Your task to perform on an android device: see creations saved in the google photos Image 0: 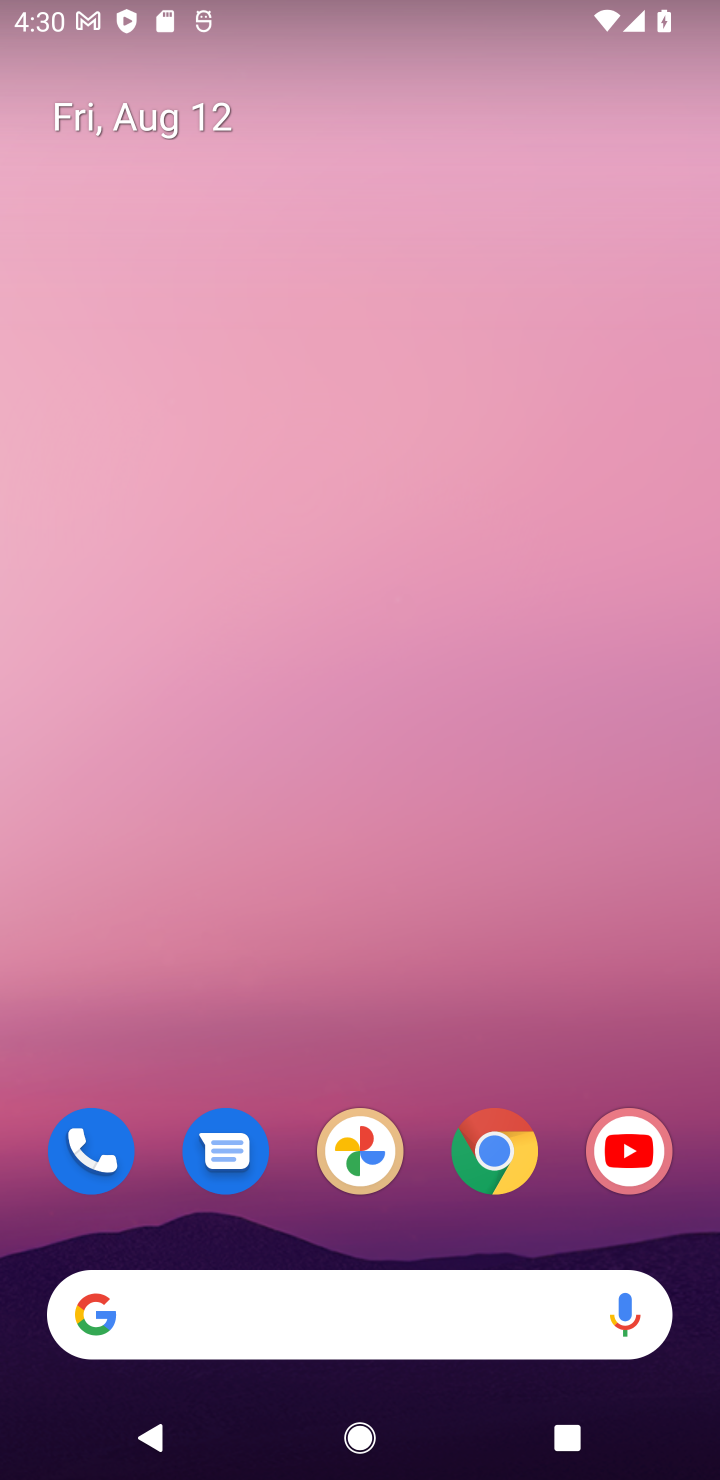
Step 0: drag from (260, 1197) to (504, 238)
Your task to perform on an android device: see creations saved in the google photos Image 1: 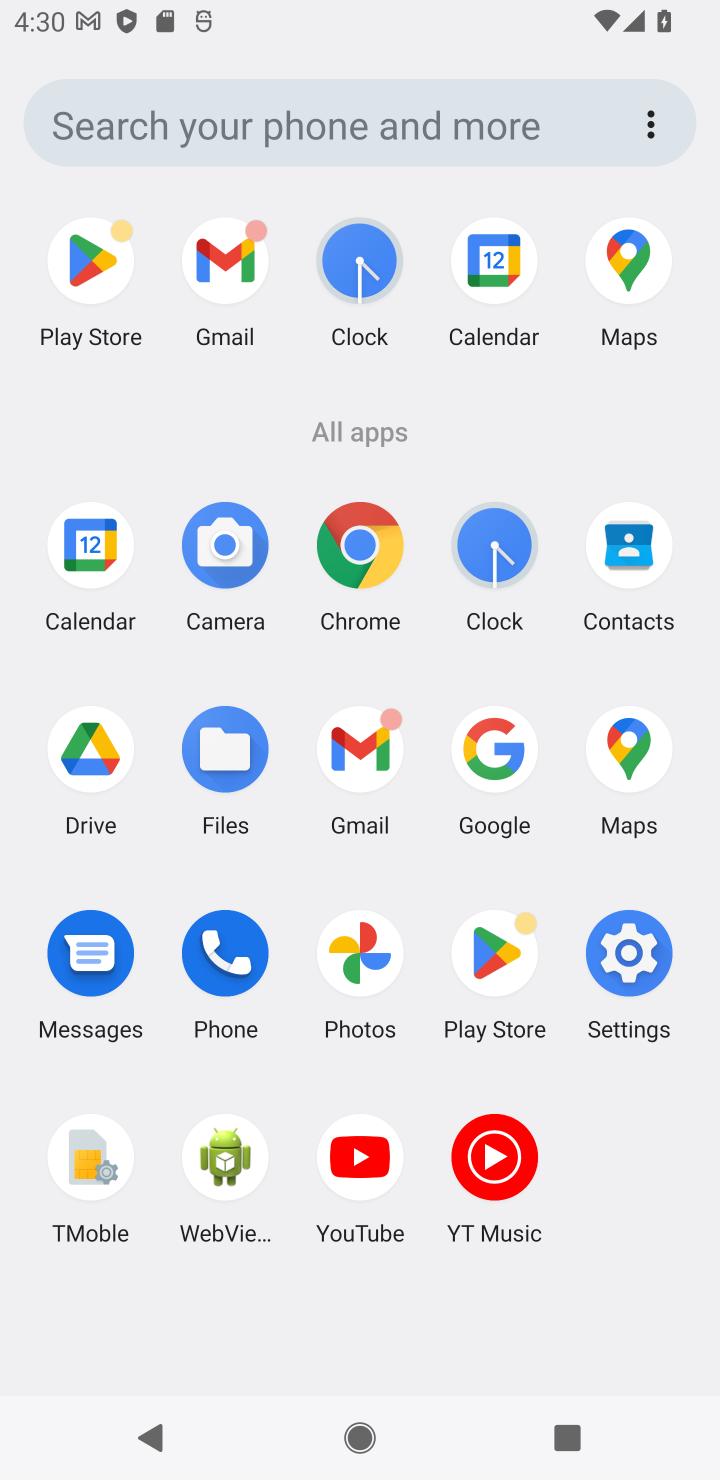
Step 1: click (360, 961)
Your task to perform on an android device: see creations saved in the google photos Image 2: 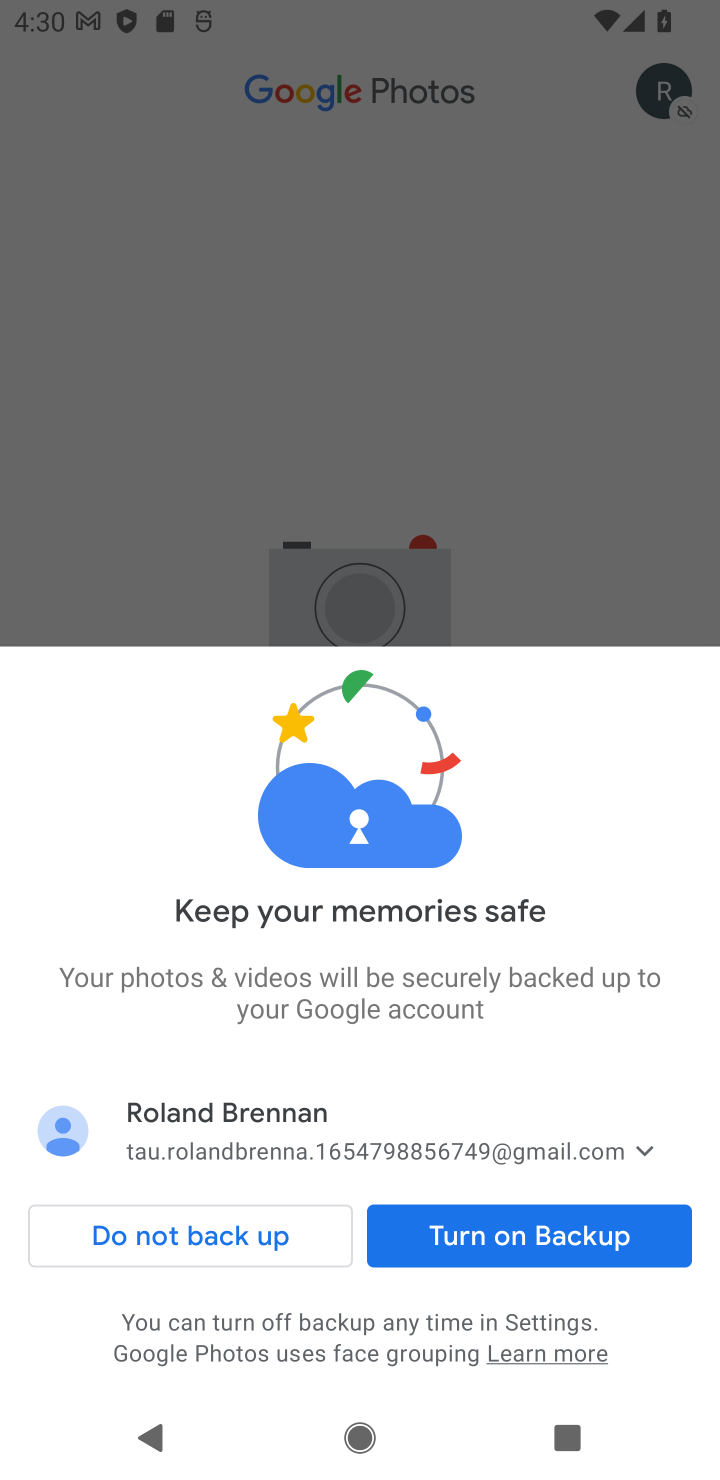
Step 2: click (512, 1239)
Your task to perform on an android device: see creations saved in the google photos Image 3: 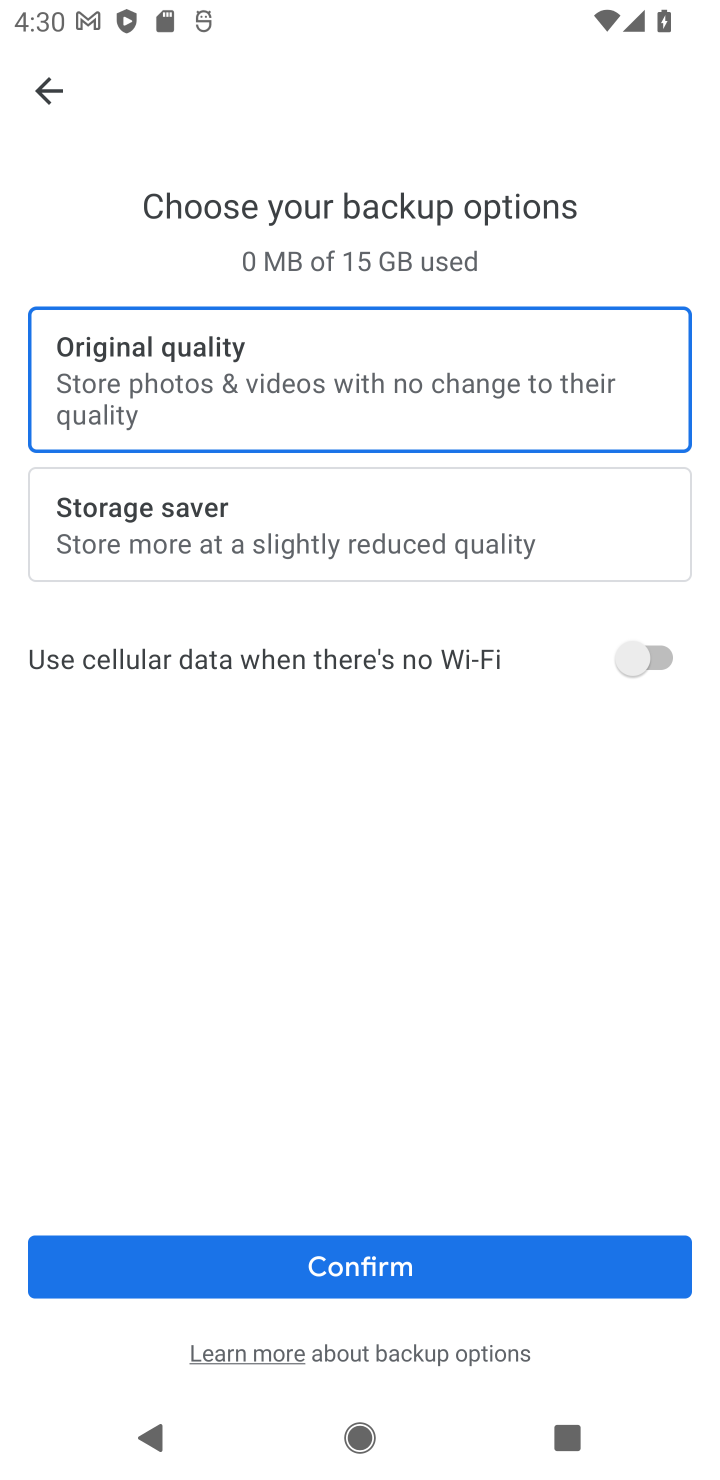
Step 3: click (493, 1297)
Your task to perform on an android device: see creations saved in the google photos Image 4: 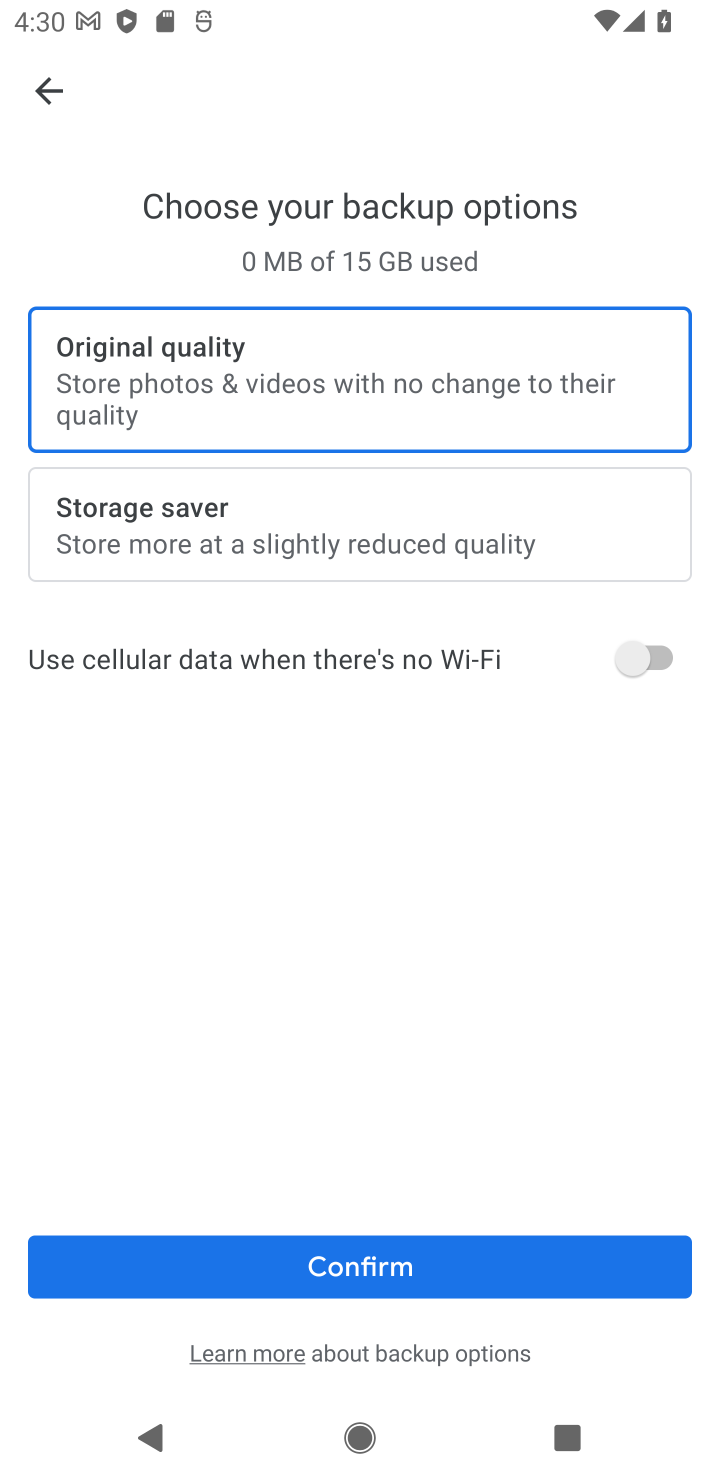
Step 4: click (499, 1250)
Your task to perform on an android device: see creations saved in the google photos Image 5: 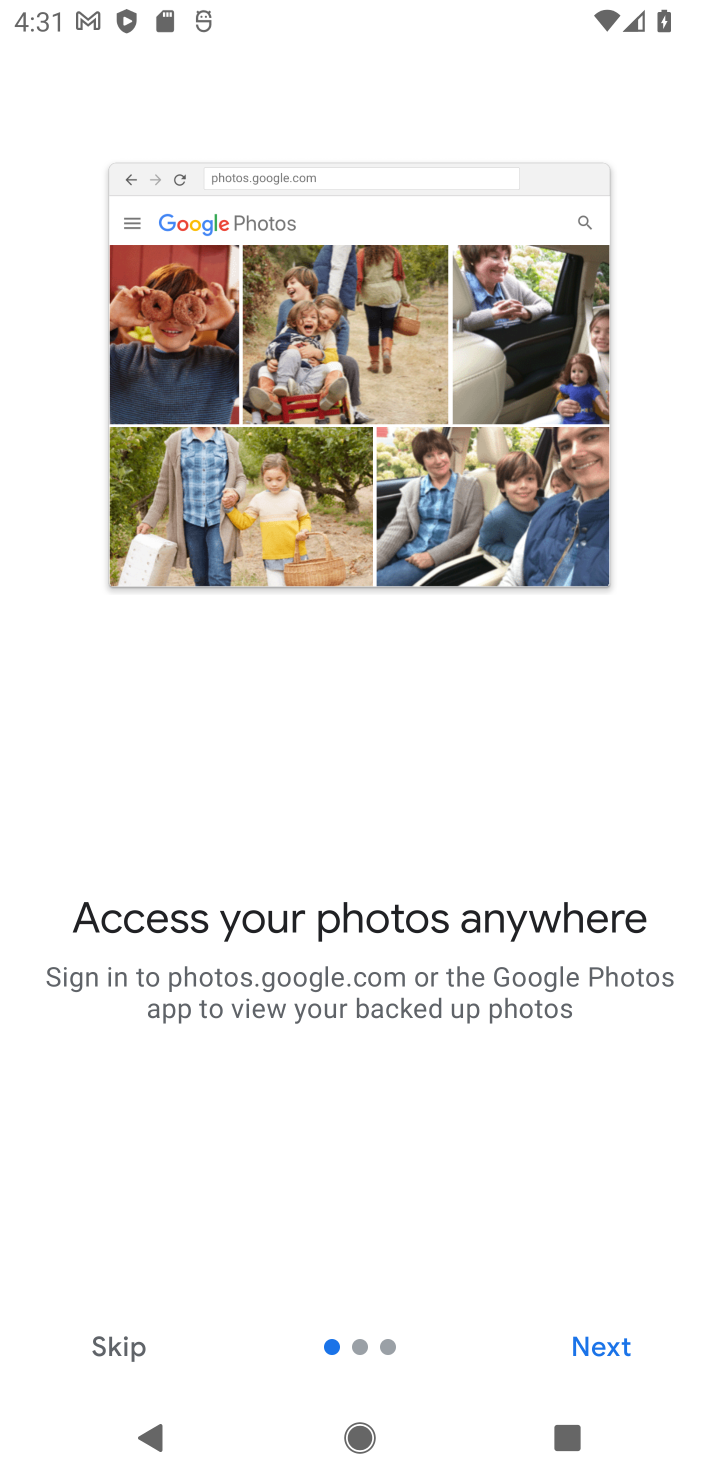
Step 5: click (599, 1355)
Your task to perform on an android device: see creations saved in the google photos Image 6: 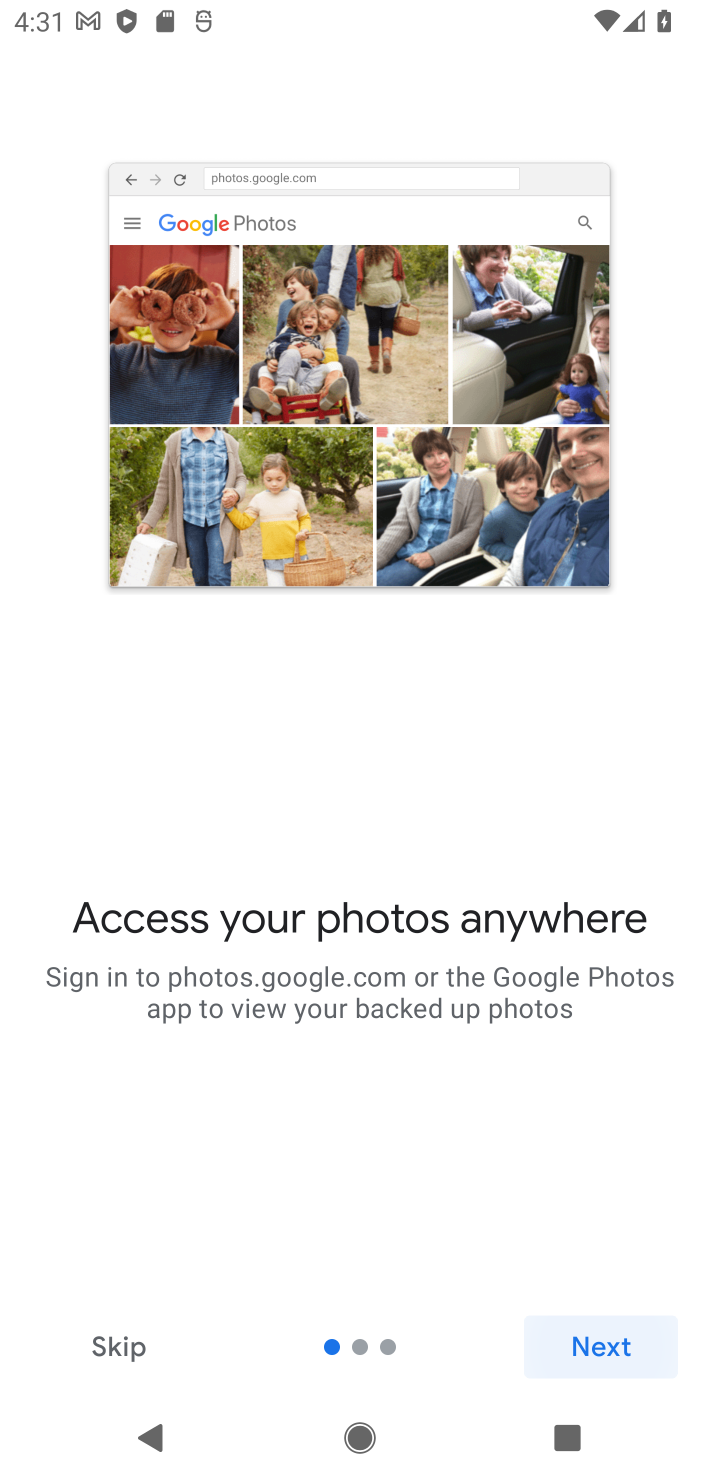
Step 6: click (599, 1355)
Your task to perform on an android device: see creations saved in the google photos Image 7: 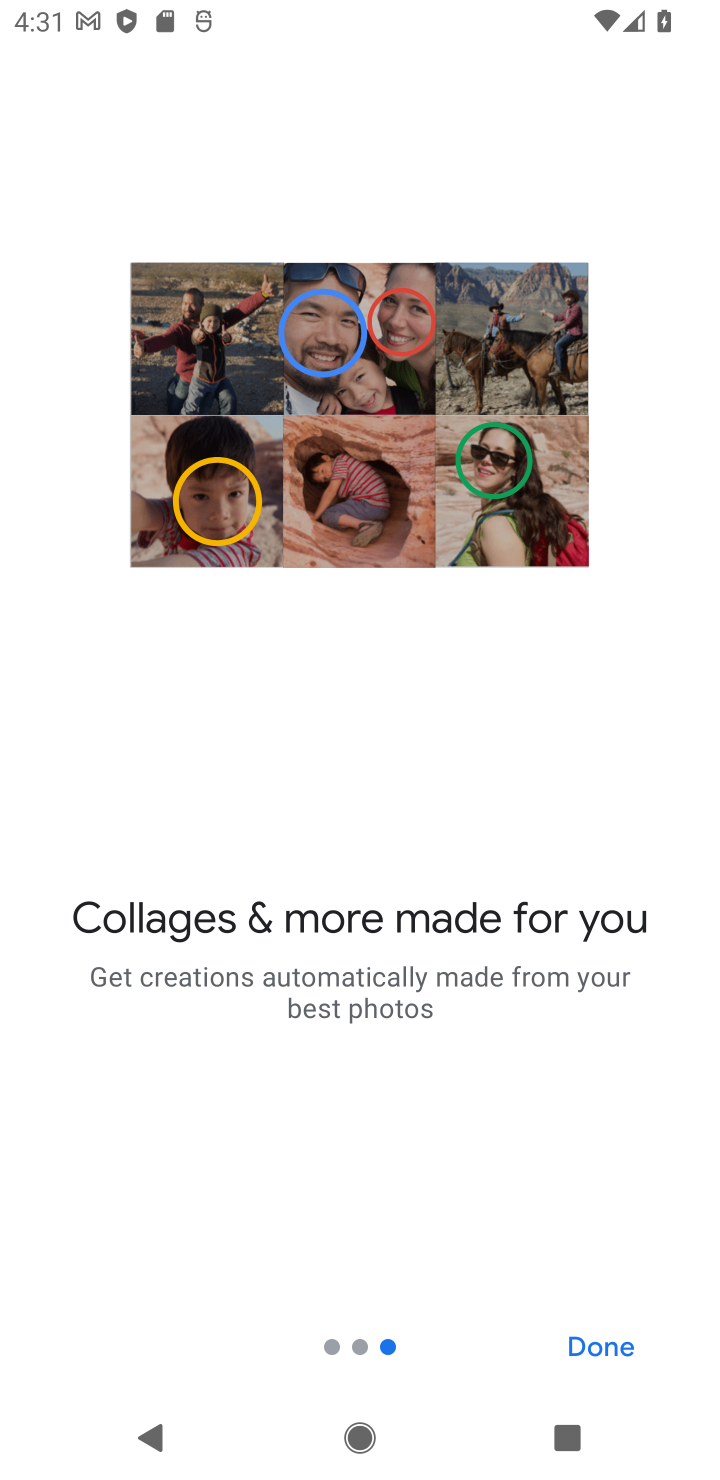
Step 7: click (599, 1355)
Your task to perform on an android device: see creations saved in the google photos Image 8: 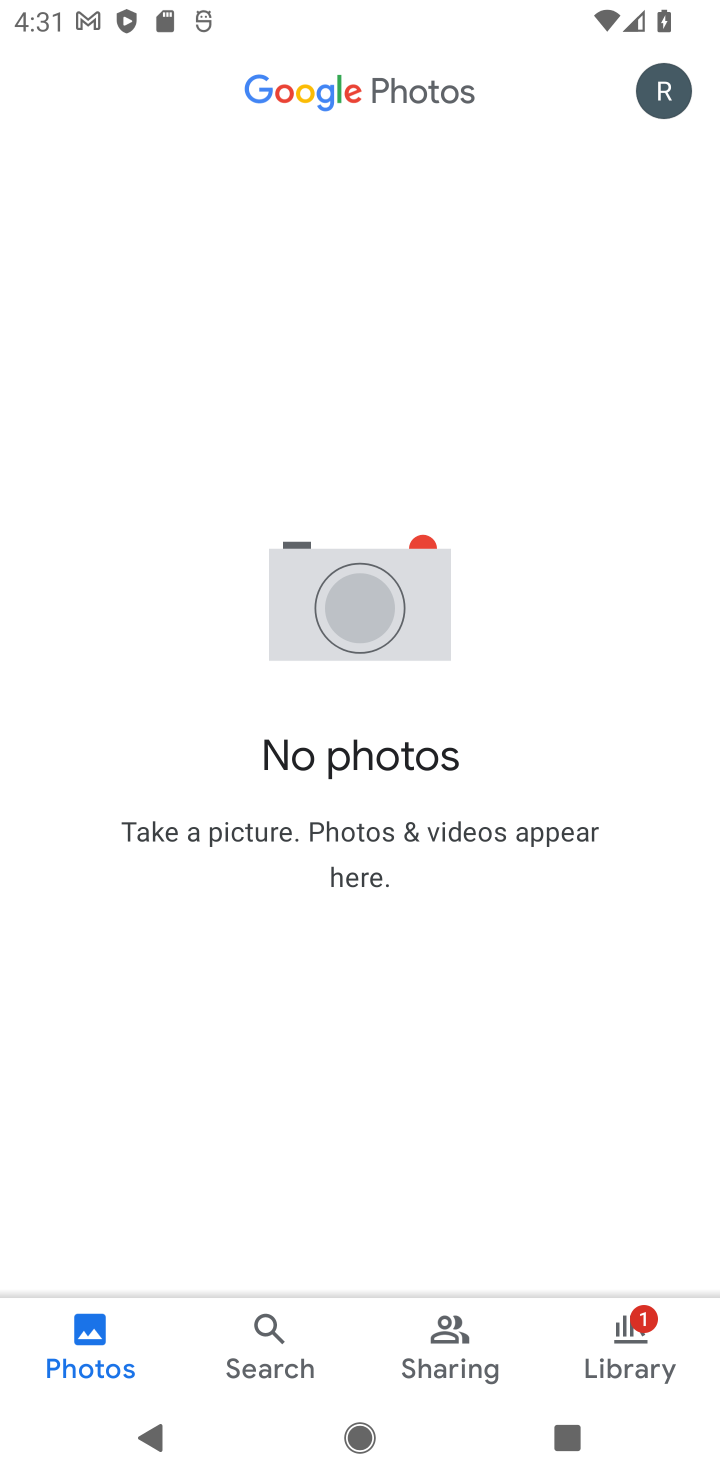
Step 8: click (622, 1360)
Your task to perform on an android device: see creations saved in the google photos Image 9: 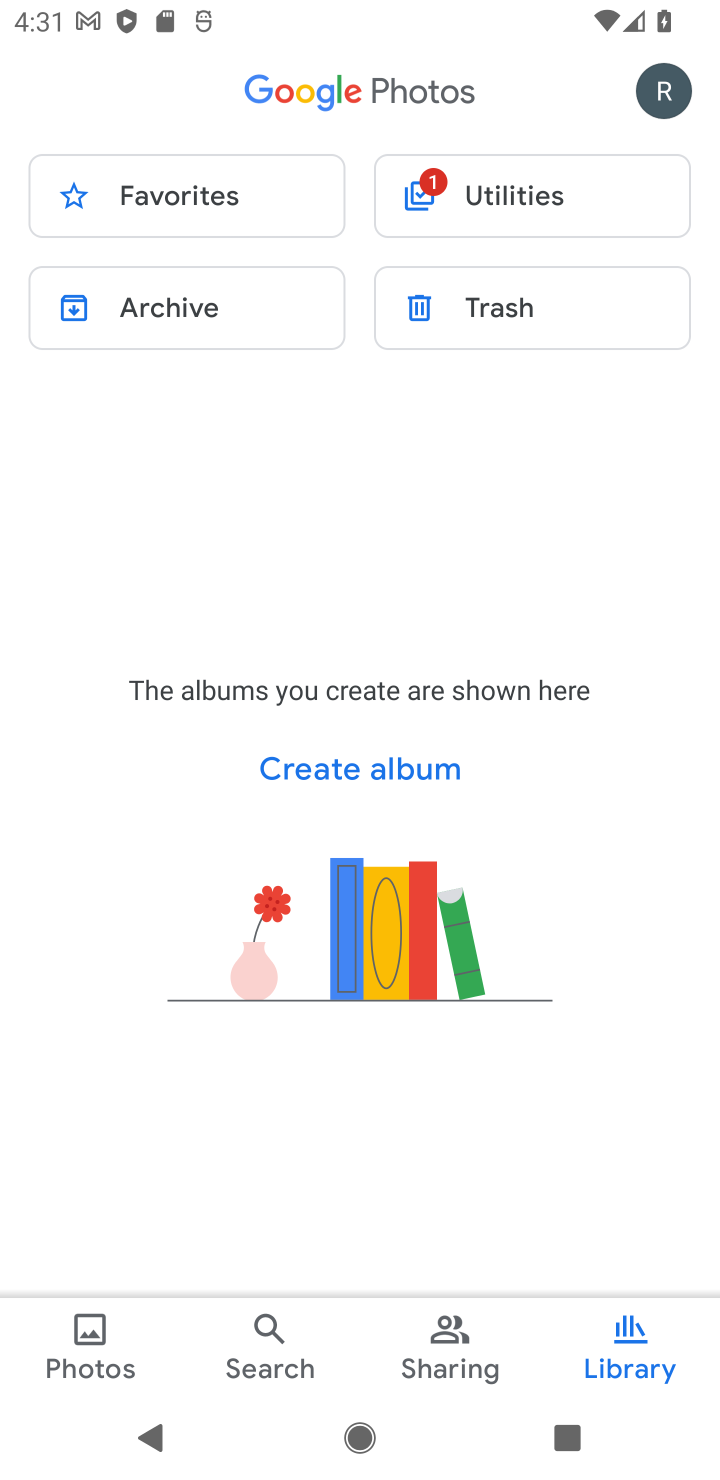
Step 9: click (515, 205)
Your task to perform on an android device: see creations saved in the google photos Image 10: 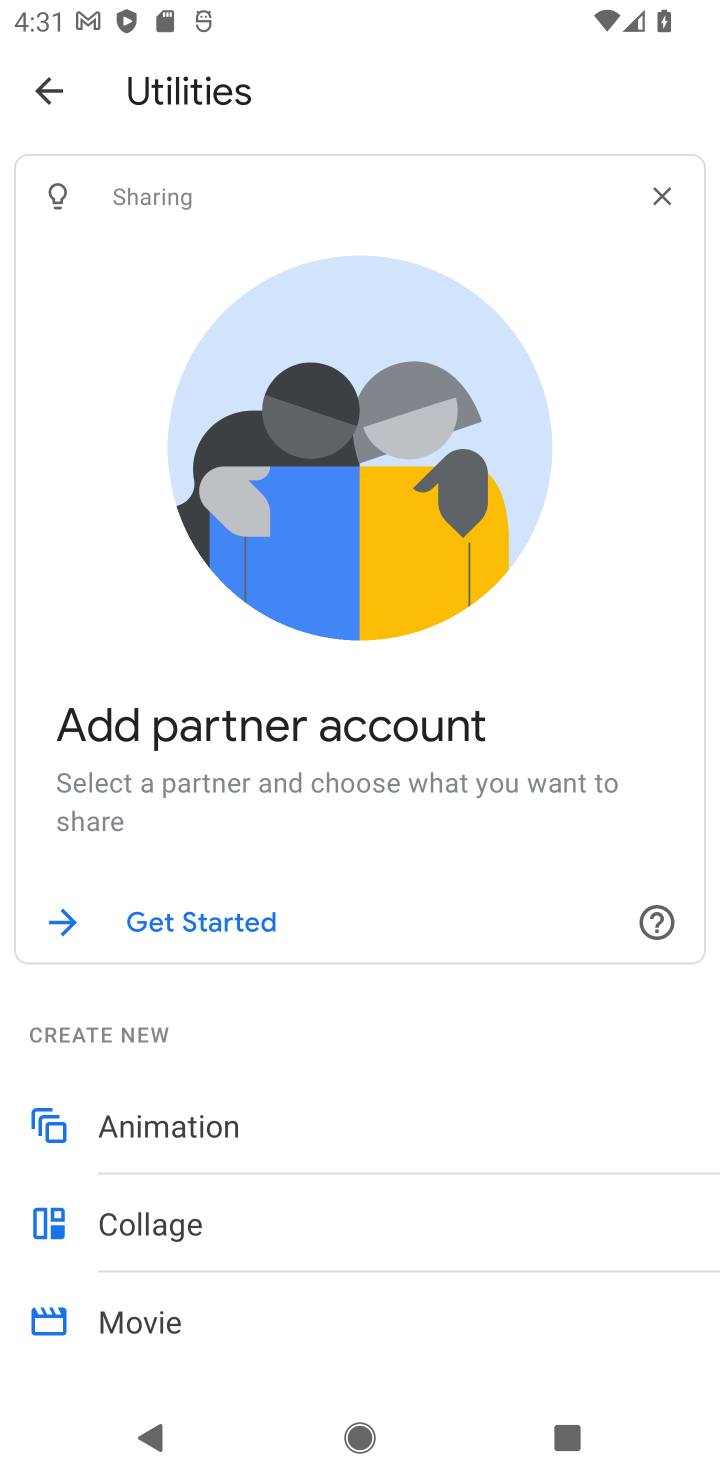
Step 10: task complete